Your task to perform on an android device: Go to sound settings Image 0: 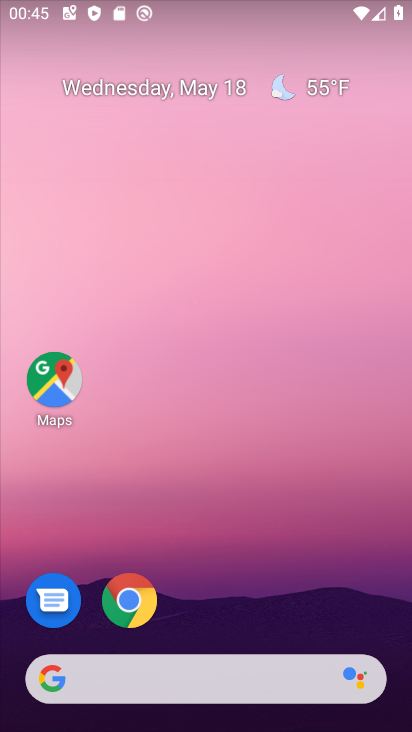
Step 0: drag from (166, 690) to (136, 386)
Your task to perform on an android device: Go to sound settings Image 1: 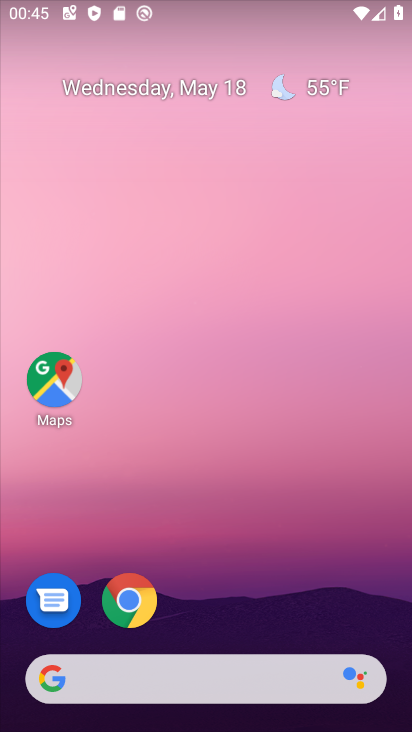
Step 1: drag from (222, 671) to (197, 98)
Your task to perform on an android device: Go to sound settings Image 2: 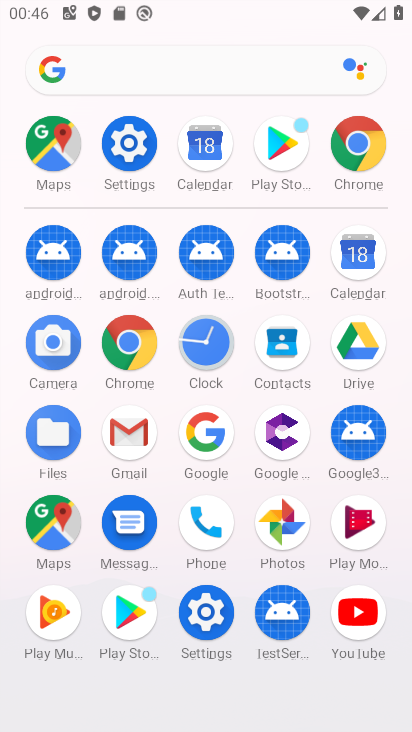
Step 2: click (121, 149)
Your task to perform on an android device: Go to sound settings Image 3: 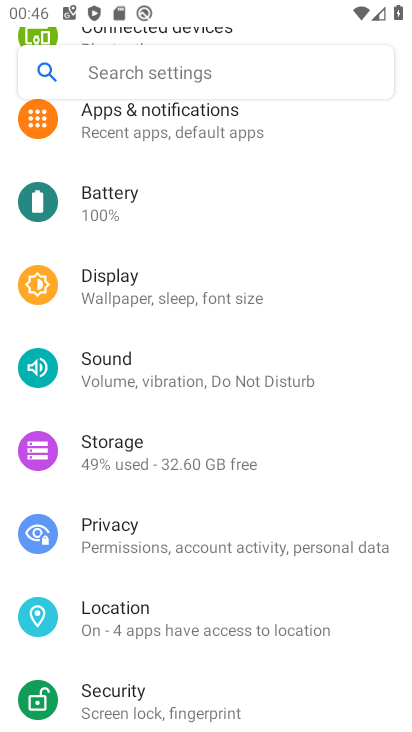
Step 3: click (110, 373)
Your task to perform on an android device: Go to sound settings Image 4: 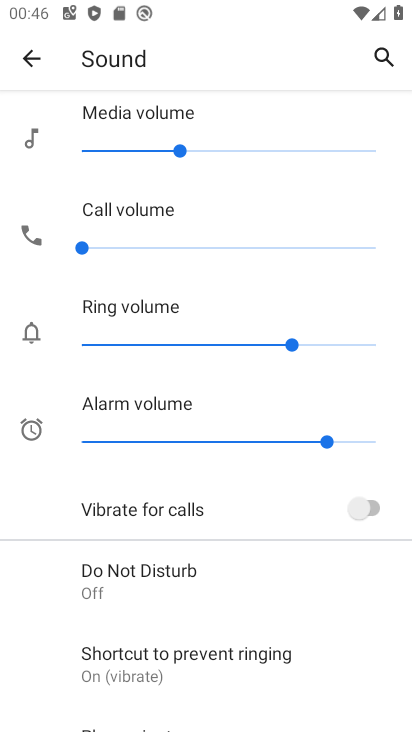
Step 4: task complete